Your task to perform on an android device: stop showing notifications on the lock screen Image 0: 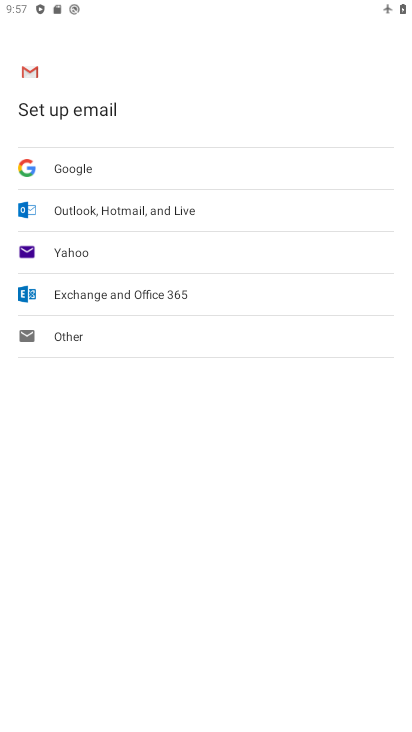
Step 0: press home button
Your task to perform on an android device: stop showing notifications on the lock screen Image 1: 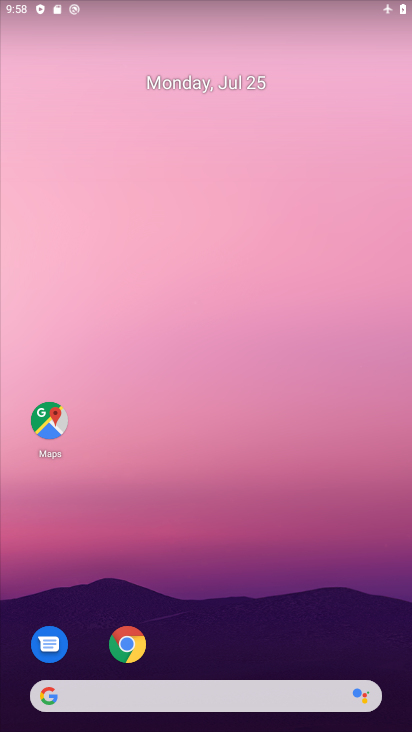
Step 1: drag from (271, 626) to (338, 8)
Your task to perform on an android device: stop showing notifications on the lock screen Image 2: 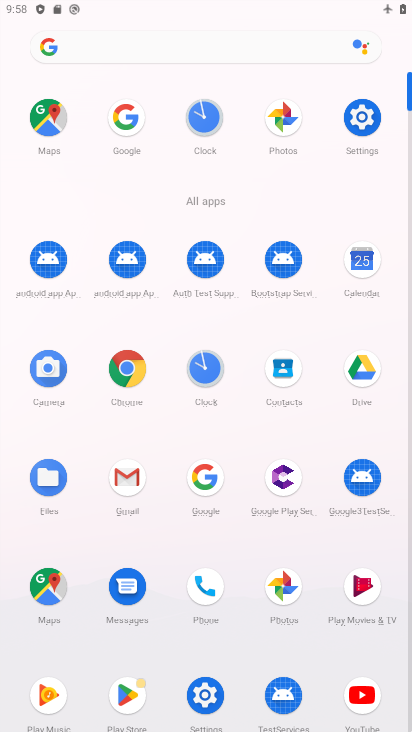
Step 2: click (128, 368)
Your task to perform on an android device: stop showing notifications on the lock screen Image 3: 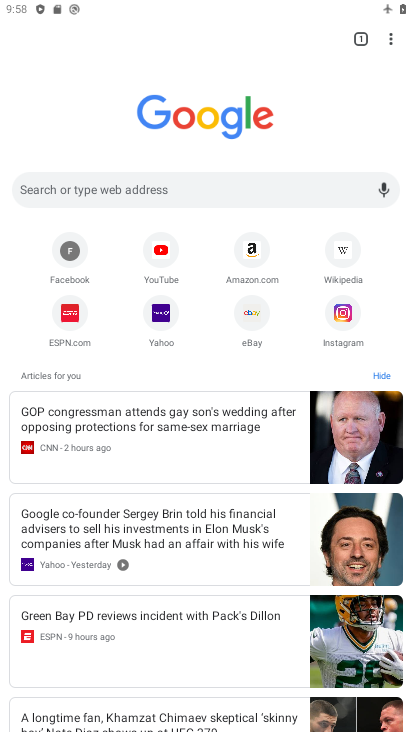
Step 3: press home button
Your task to perform on an android device: stop showing notifications on the lock screen Image 4: 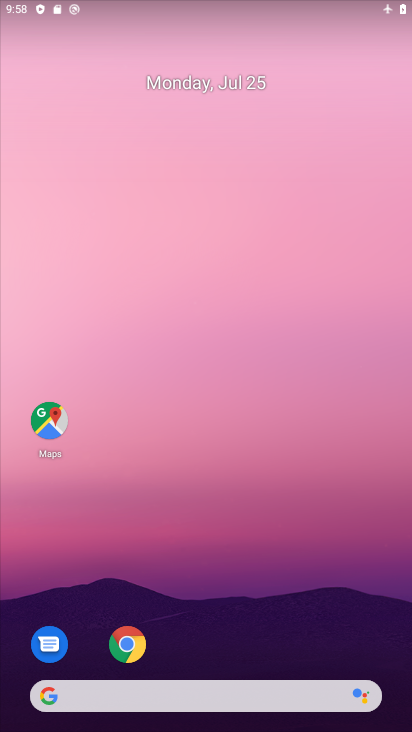
Step 4: drag from (217, 630) to (304, 57)
Your task to perform on an android device: stop showing notifications on the lock screen Image 5: 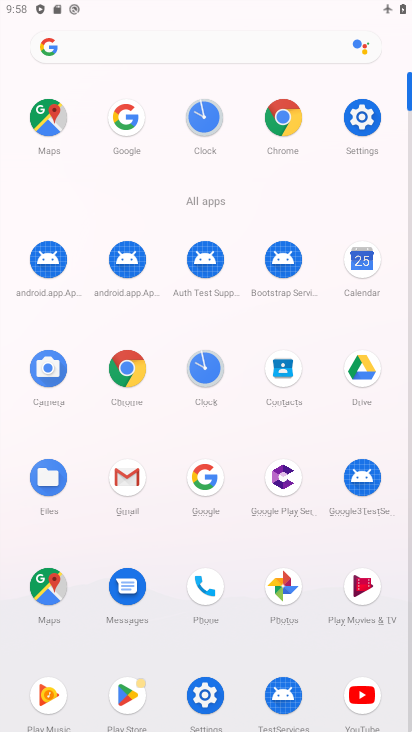
Step 5: click (201, 687)
Your task to perform on an android device: stop showing notifications on the lock screen Image 6: 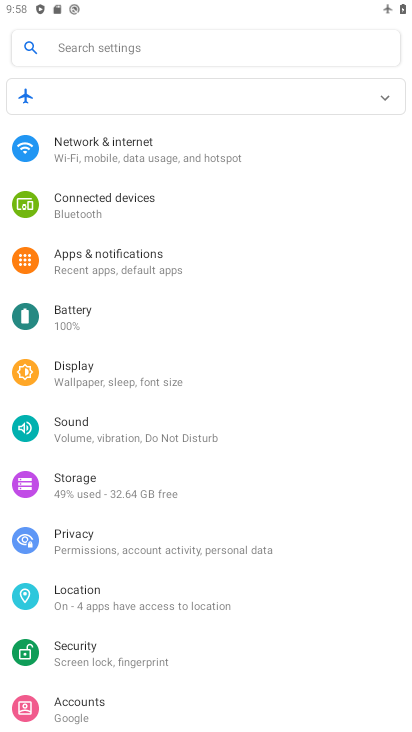
Step 6: drag from (252, 663) to (276, 310)
Your task to perform on an android device: stop showing notifications on the lock screen Image 7: 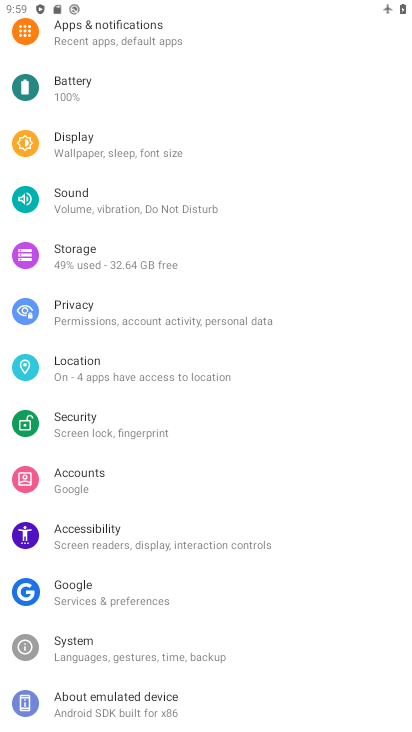
Step 7: click (137, 24)
Your task to perform on an android device: stop showing notifications on the lock screen Image 8: 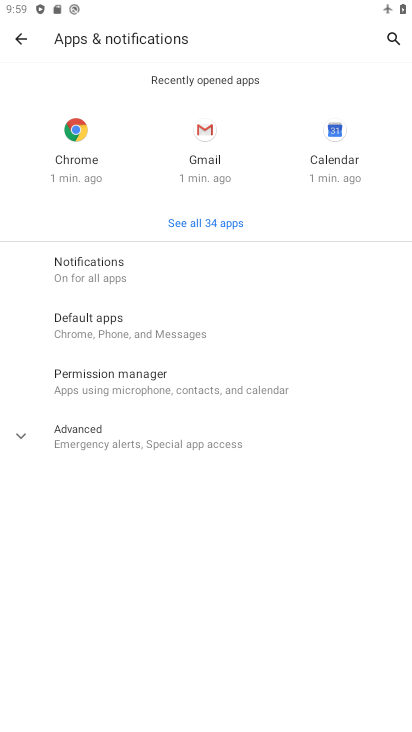
Step 8: click (118, 260)
Your task to perform on an android device: stop showing notifications on the lock screen Image 9: 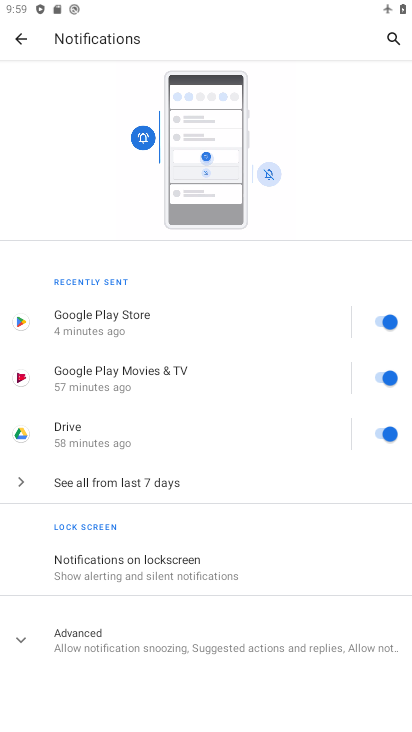
Step 9: click (215, 570)
Your task to perform on an android device: stop showing notifications on the lock screen Image 10: 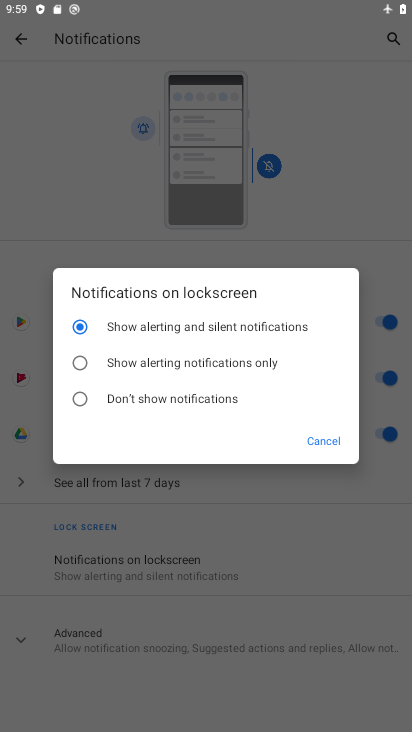
Step 10: click (191, 396)
Your task to perform on an android device: stop showing notifications on the lock screen Image 11: 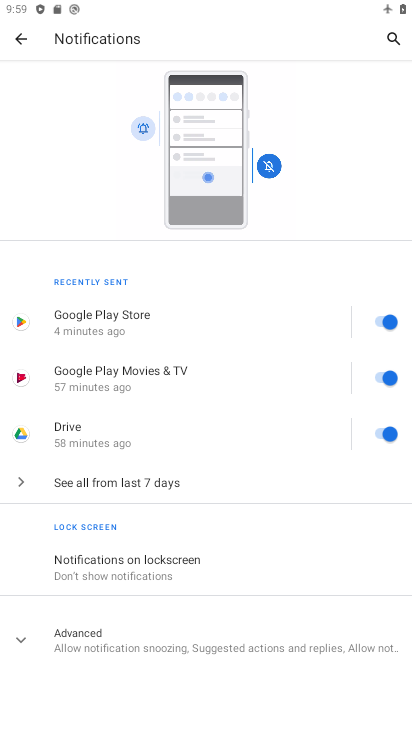
Step 11: task complete